Your task to perform on an android device: open chrome privacy settings Image 0: 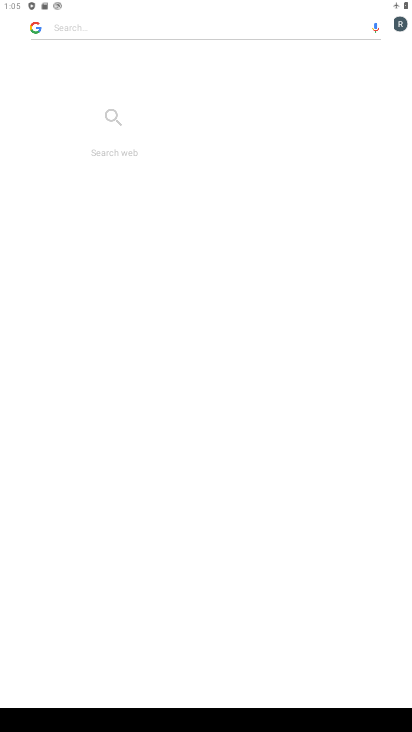
Step 0: press home button
Your task to perform on an android device: open chrome privacy settings Image 1: 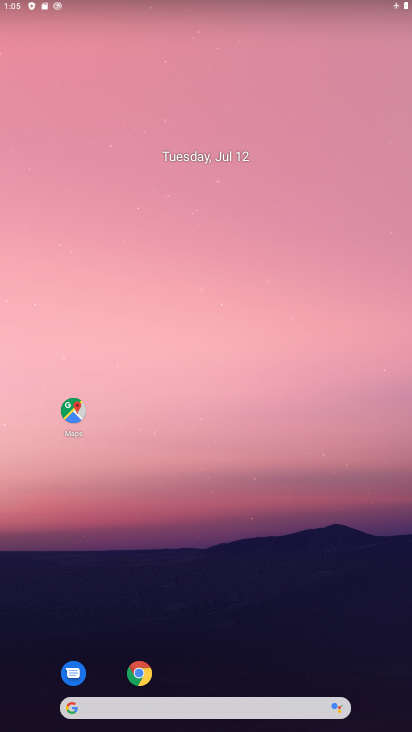
Step 1: drag from (279, 687) to (262, 322)
Your task to perform on an android device: open chrome privacy settings Image 2: 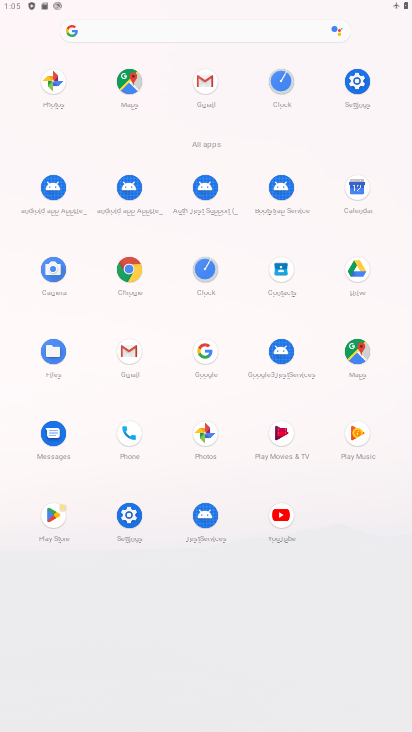
Step 2: click (367, 78)
Your task to perform on an android device: open chrome privacy settings Image 3: 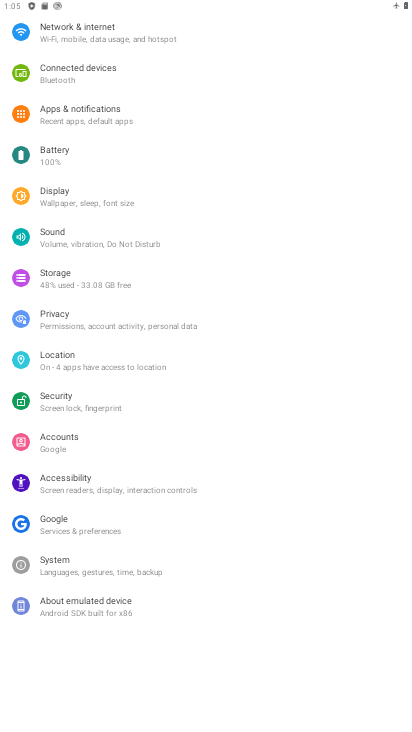
Step 3: drag from (83, 322) to (399, 682)
Your task to perform on an android device: open chrome privacy settings Image 4: 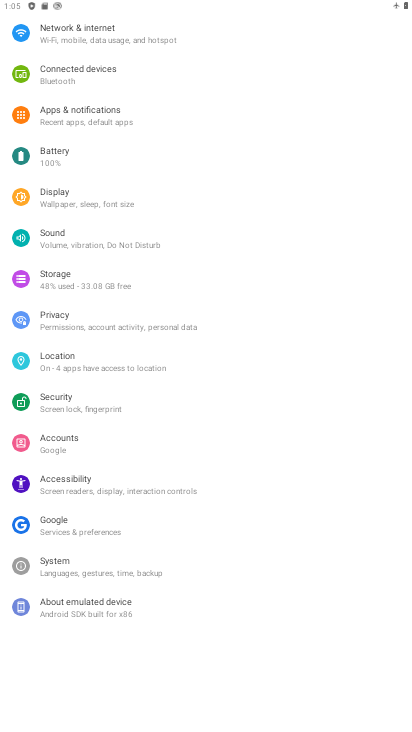
Step 4: press home button
Your task to perform on an android device: open chrome privacy settings Image 5: 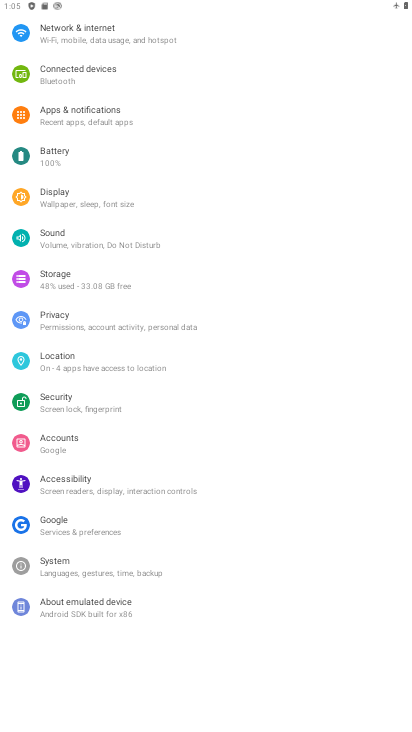
Step 5: drag from (399, 682) to (353, 374)
Your task to perform on an android device: open chrome privacy settings Image 6: 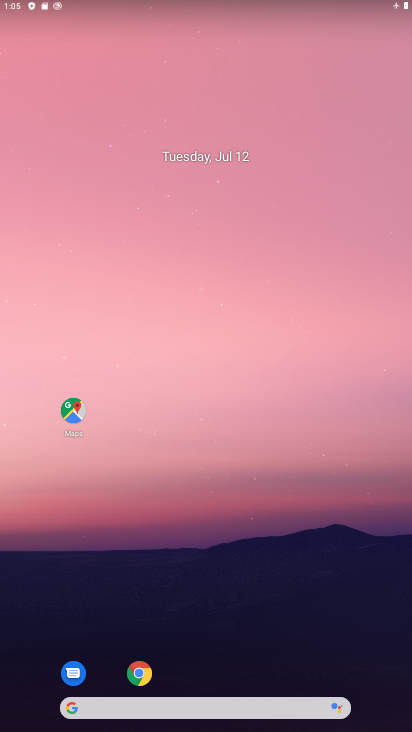
Step 6: click (150, 679)
Your task to perform on an android device: open chrome privacy settings Image 7: 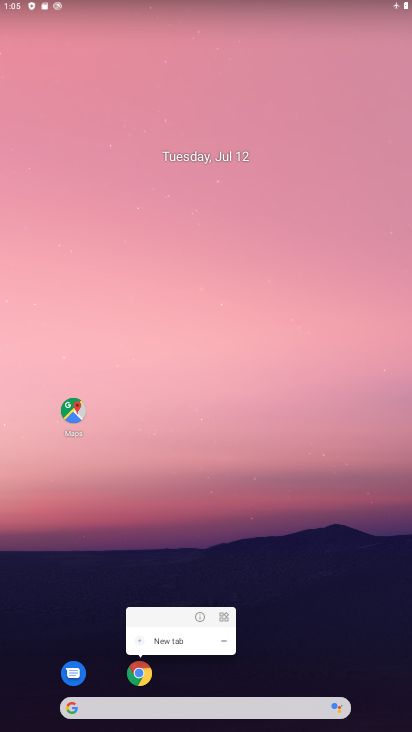
Step 7: click (146, 674)
Your task to perform on an android device: open chrome privacy settings Image 8: 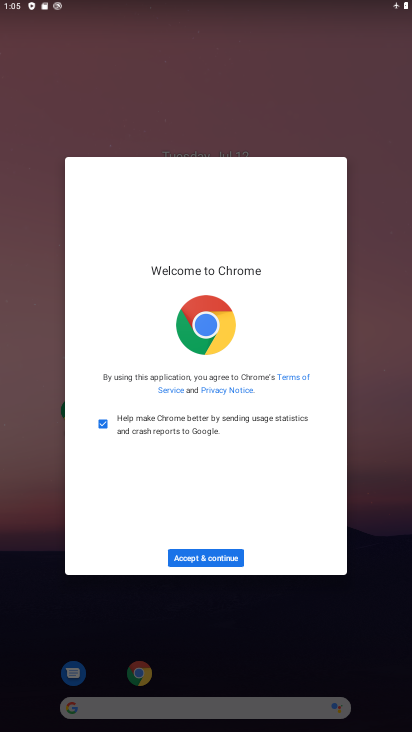
Step 8: click (207, 566)
Your task to perform on an android device: open chrome privacy settings Image 9: 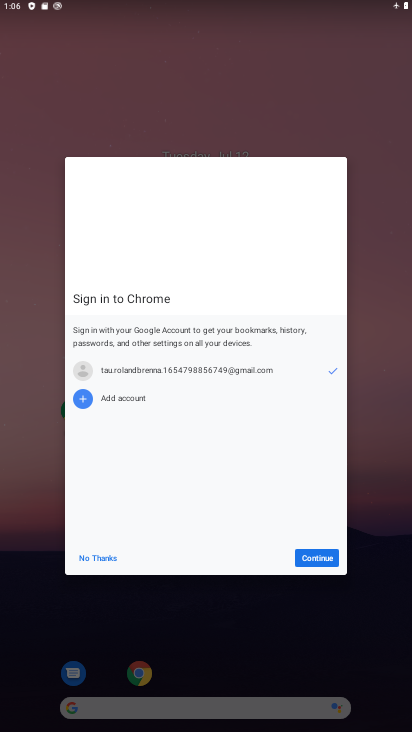
Step 9: click (315, 564)
Your task to perform on an android device: open chrome privacy settings Image 10: 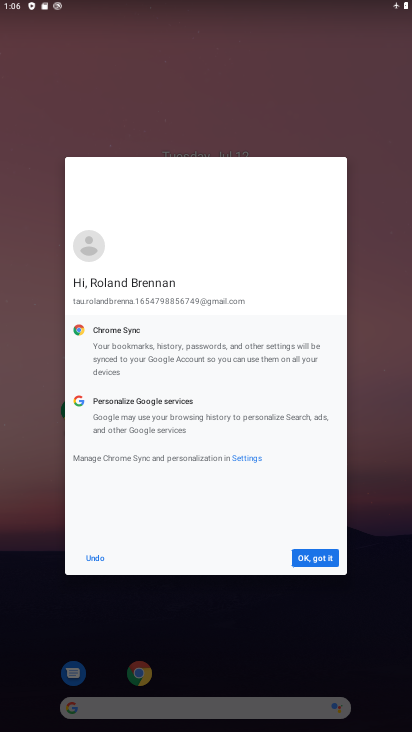
Step 10: click (315, 554)
Your task to perform on an android device: open chrome privacy settings Image 11: 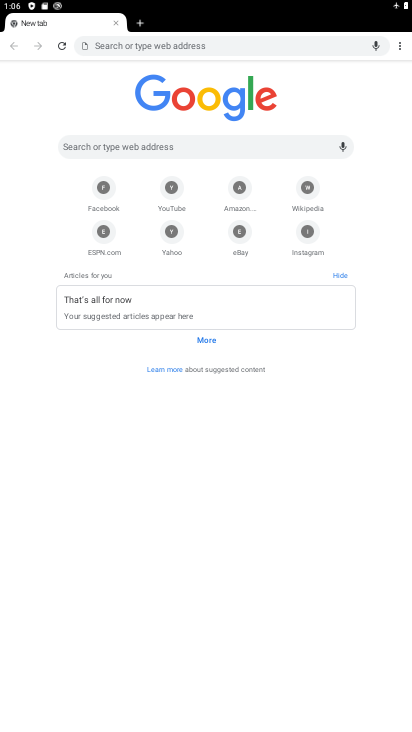
Step 11: click (405, 45)
Your task to perform on an android device: open chrome privacy settings Image 12: 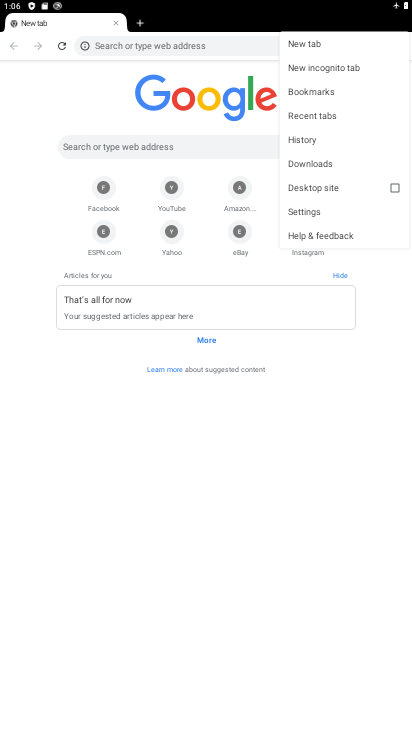
Step 12: click (313, 211)
Your task to perform on an android device: open chrome privacy settings Image 13: 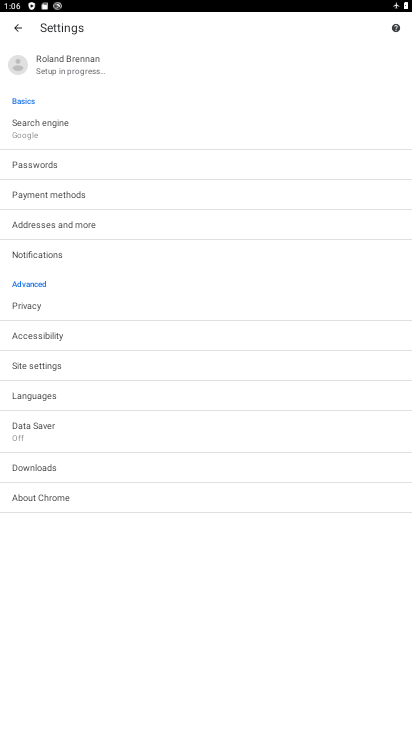
Step 13: click (41, 307)
Your task to perform on an android device: open chrome privacy settings Image 14: 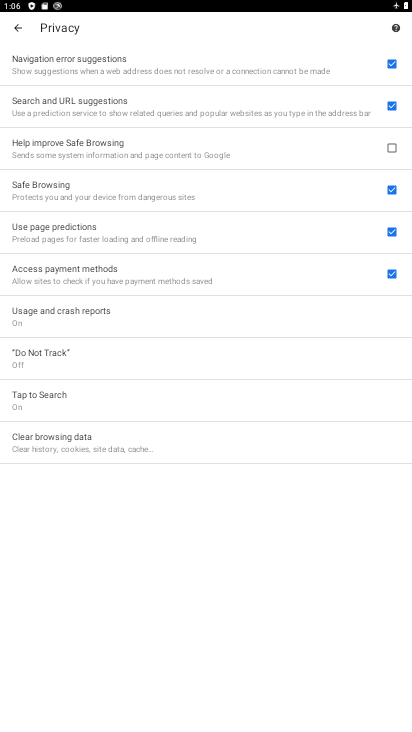
Step 14: task complete